Your task to perform on an android device: install app "Google Play services" Image 0: 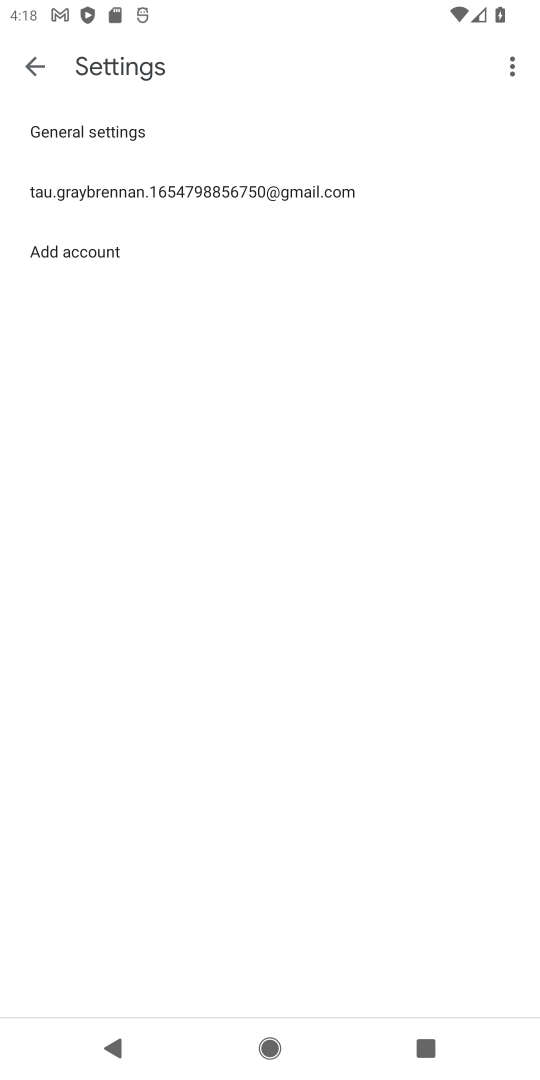
Step 0: press home button
Your task to perform on an android device: install app "Google Play services" Image 1: 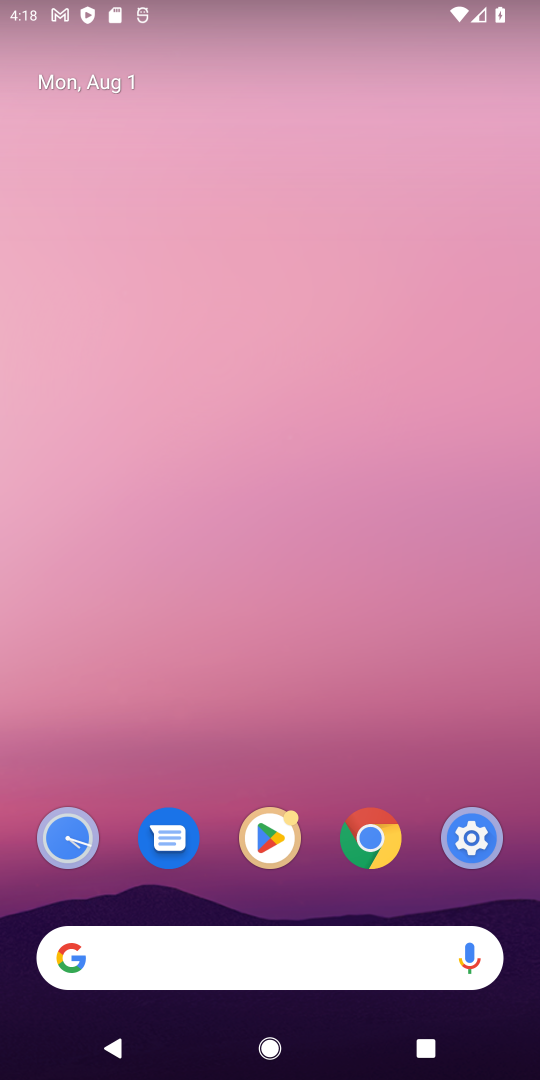
Step 1: click (297, 830)
Your task to perform on an android device: install app "Google Play services" Image 2: 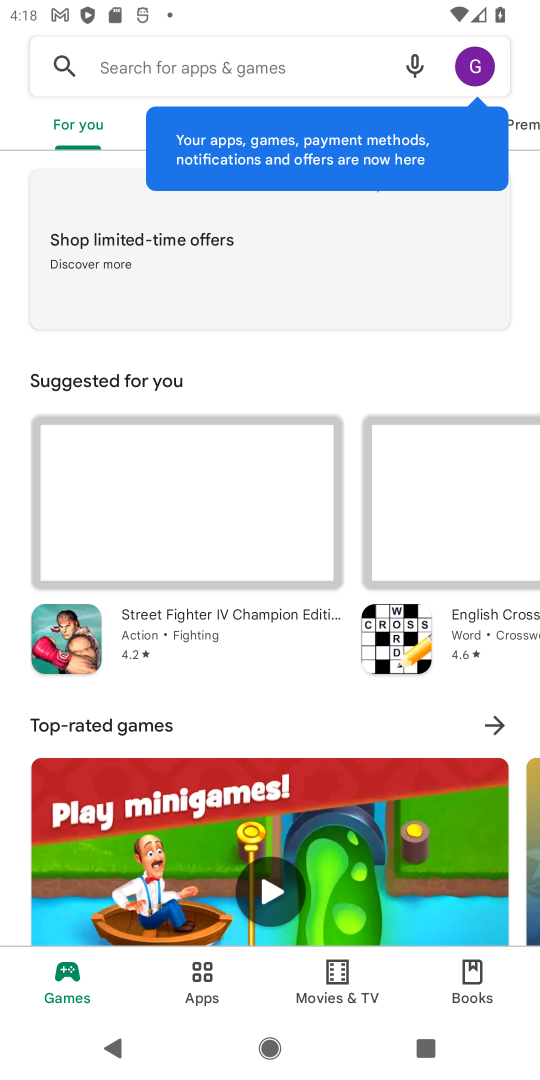
Step 2: click (129, 65)
Your task to perform on an android device: install app "Google Play services" Image 3: 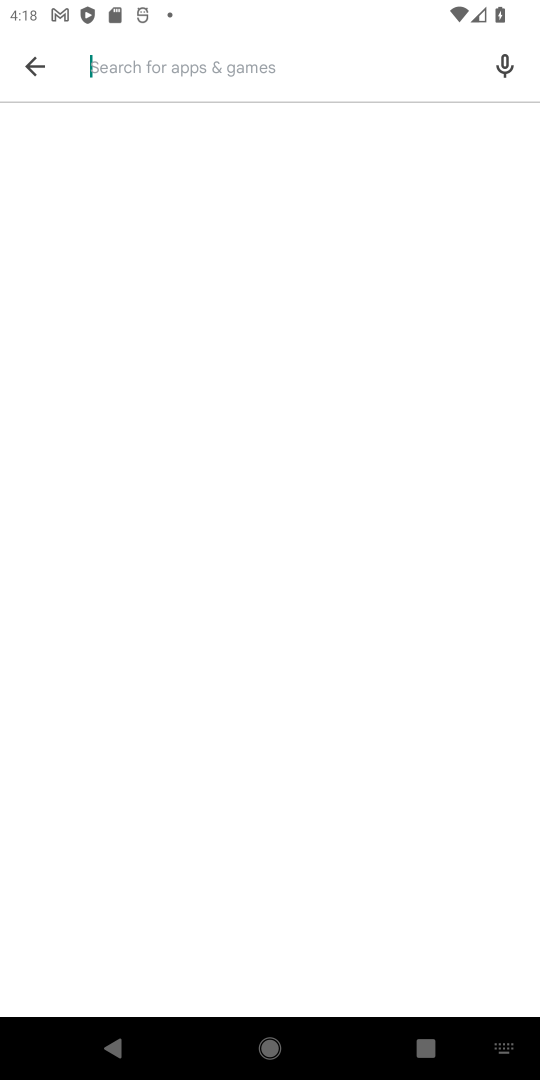
Step 3: type "google play services"
Your task to perform on an android device: install app "Google Play services" Image 4: 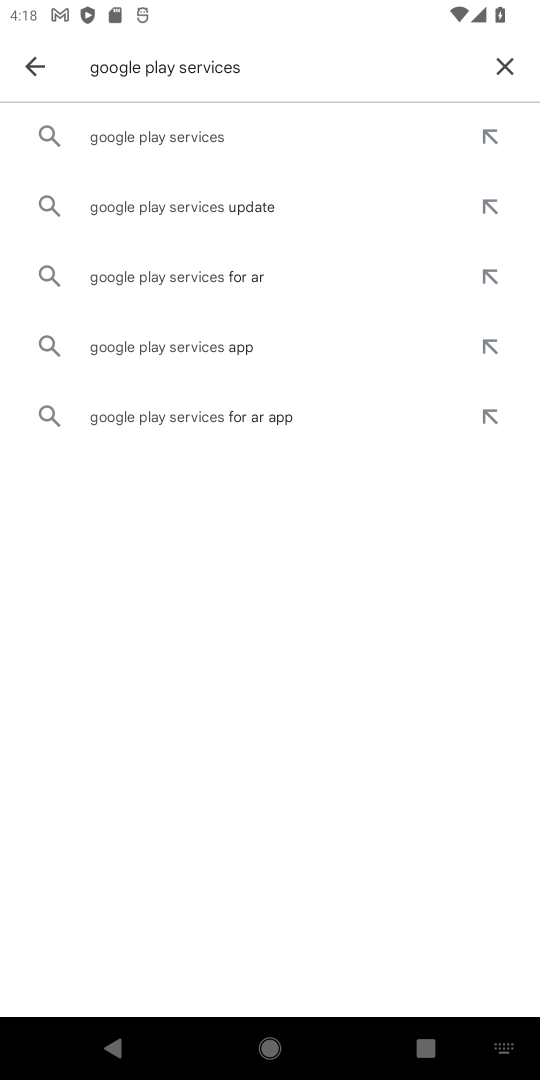
Step 4: click (171, 147)
Your task to perform on an android device: install app "Google Play services" Image 5: 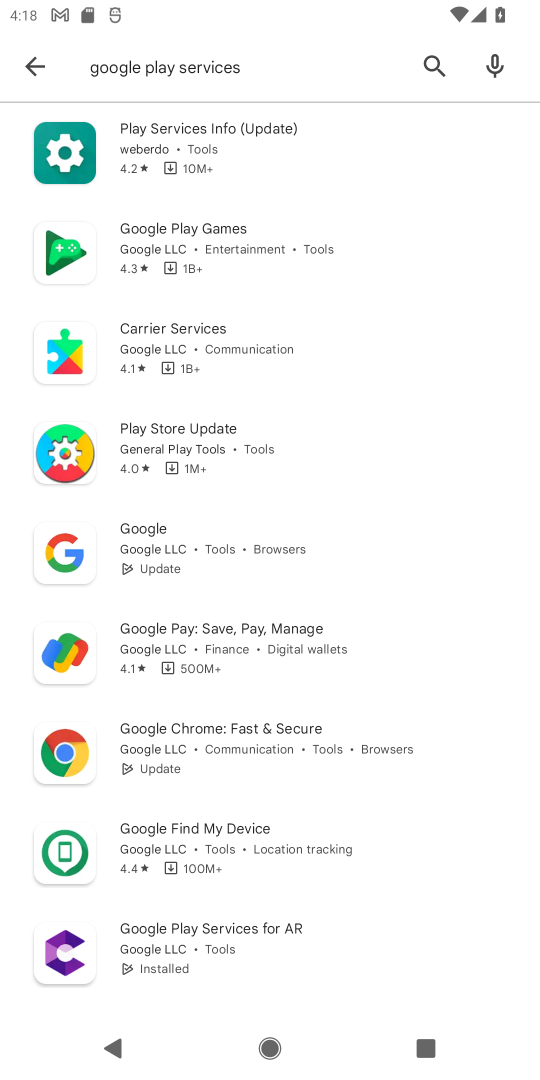
Step 5: drag from (346, 928) to (272, 1037)
Your task to perform on an android device: install app "Google Play services" Image 6: 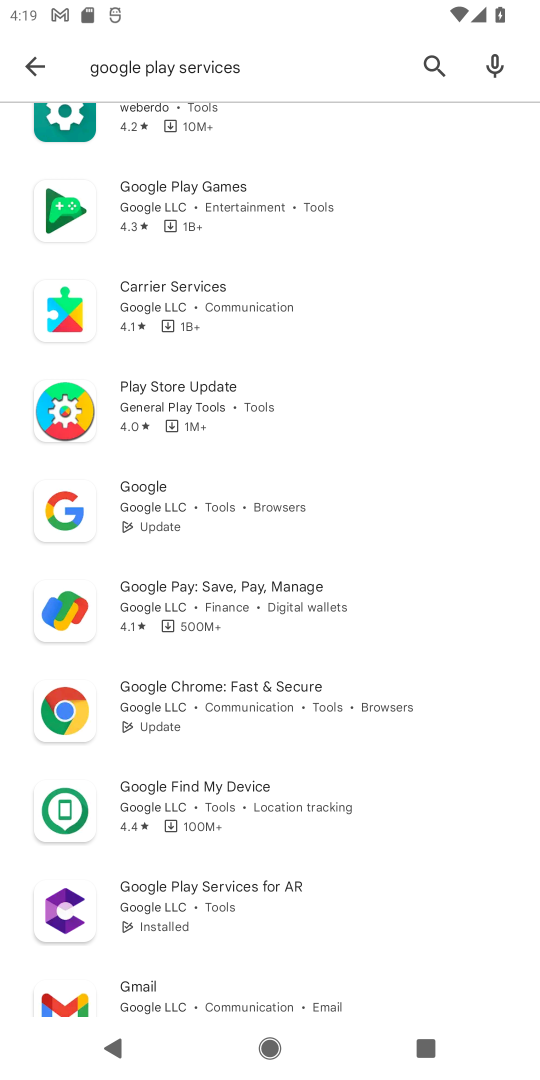
Step 6: click (199, 127)
Your task to perform on an android device: install app "Google Play services" Image 7: 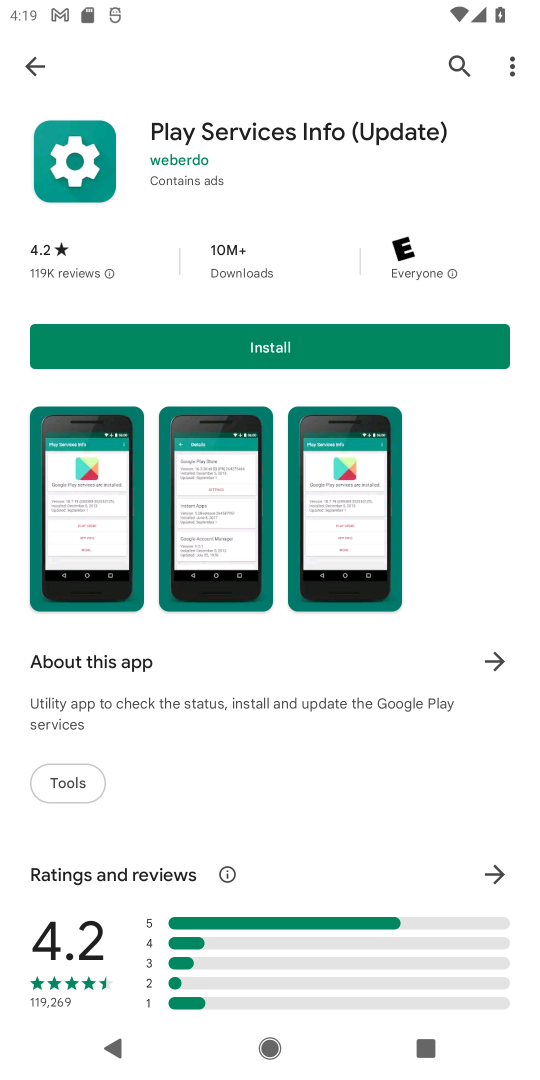
Step 7: task complete